Your task to perform on an android device: Go to Google Image 0: 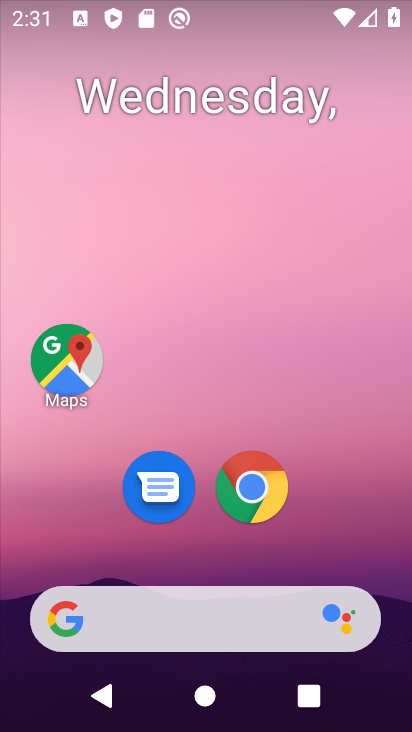
Step 0: drag from (200, 586) to (237, 256)
Your task to perform on an android device: Go to Google Image 1: 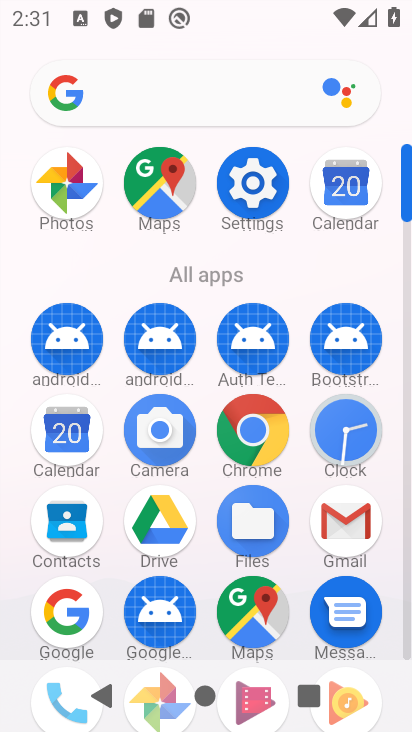
Step 1: drag from (201, 631) to (222, 379)
Your task to perform on an android device: Go to Google Image 2: 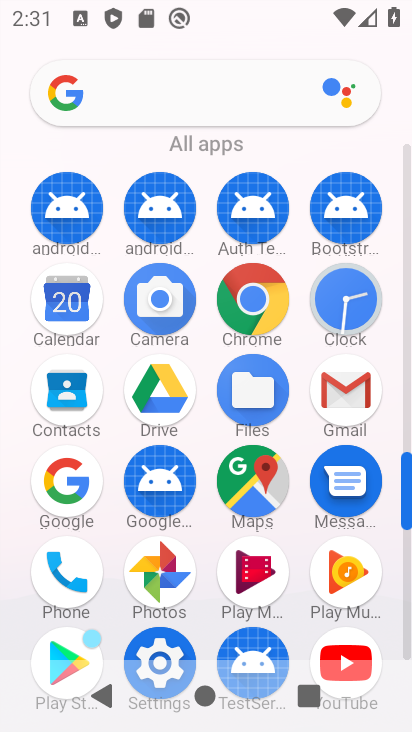
Step 2: drag from (199, 634) to (234, 373)
Your task to perform on an android device: Go to Google Image 3: 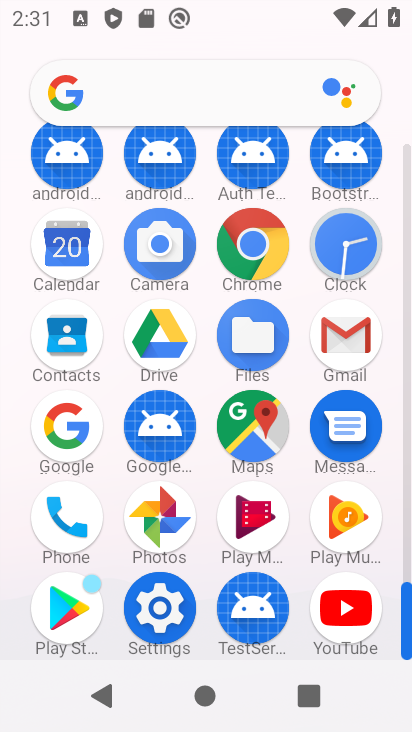
Step 3: click (69, 433)
Your task to perform on an android device: Go to Google Image 4: 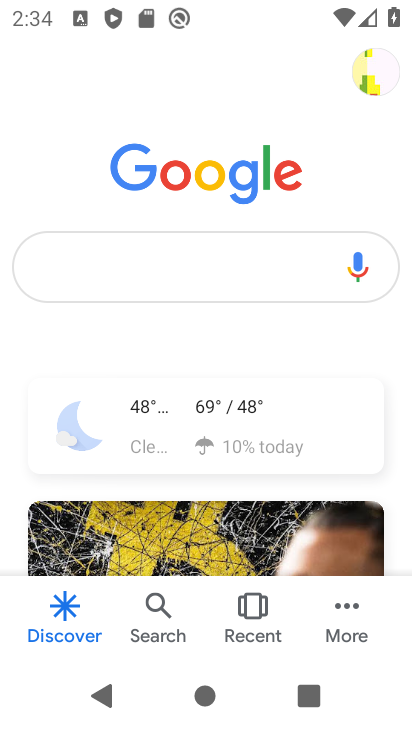
Step 4: task complete